Your task to perform on an android device: uninstall "Facebook" Image 0: 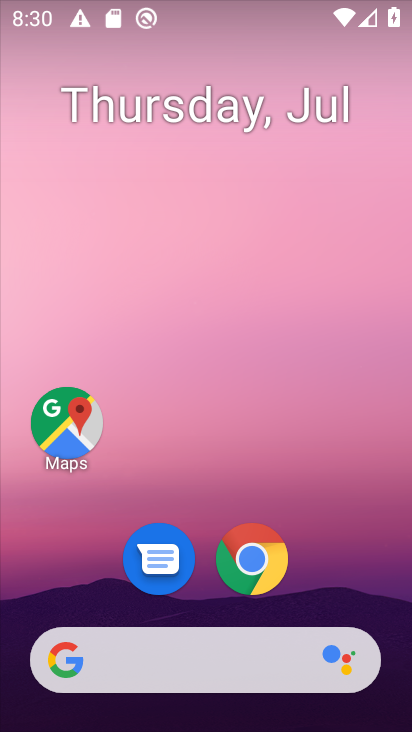
Step 0: drag from (212, 538) to (219, 0)
Your task to perform on an android device: uninstall "Facebook" Image 1: 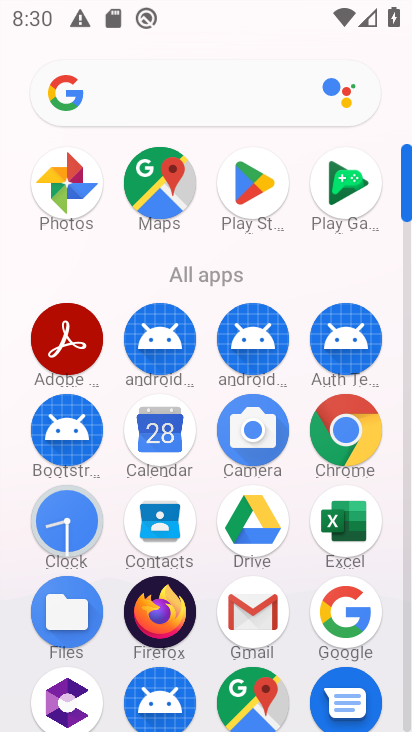
Step 1: click (249, 174)
Your task to perform on an android device: uninstall "Facebook" Image 2: 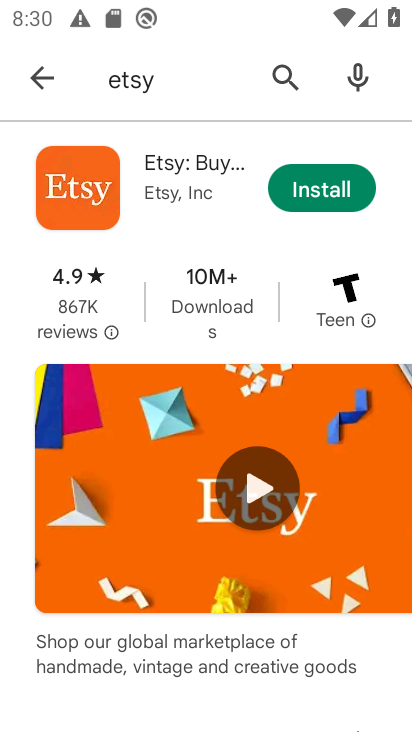
Step 2: click (283, 67)
Your task to perform on an android device: uninstall "Facebook" Image 3: 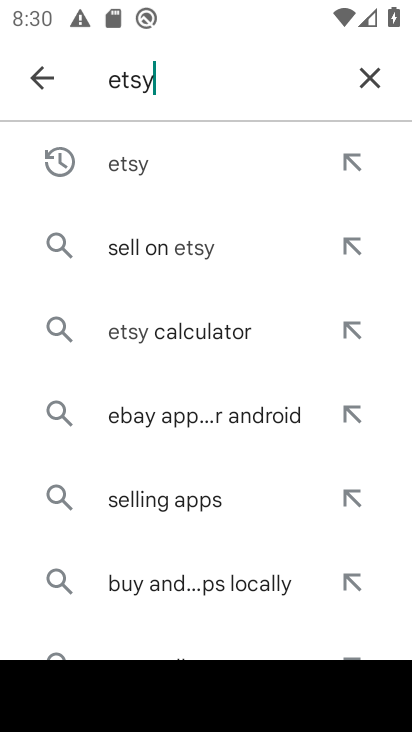
Step 3: click (365, 79)
Your task to perform on an android device: uninstall "Facebook" Image 4: 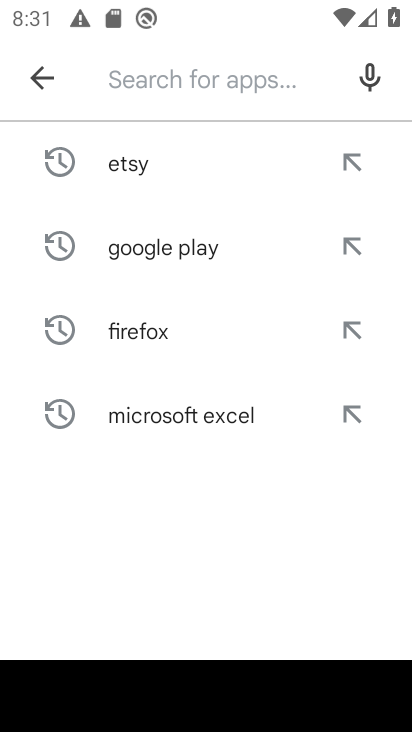
Step 4: type "facebook"
Your task to perform on an android device: uninstall "Facebook" Image 5: 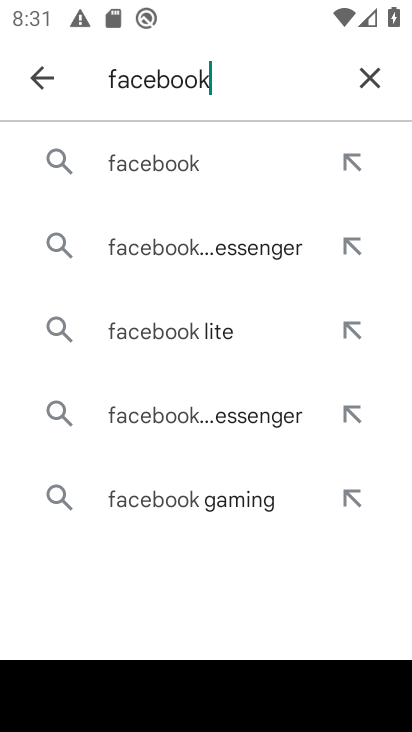
Step 5: click (169, 167)
Your task to perform on an android device: uninstall "Facebook" Image 6: 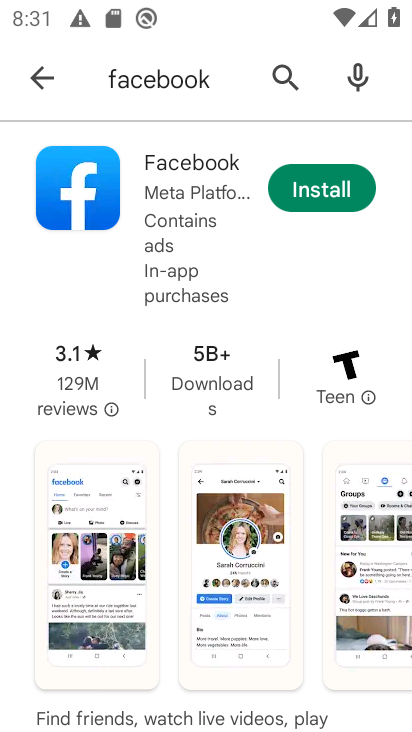
Step 6: task complete